Your task to perform on an android device: Go to Yahoo.com Image 0: 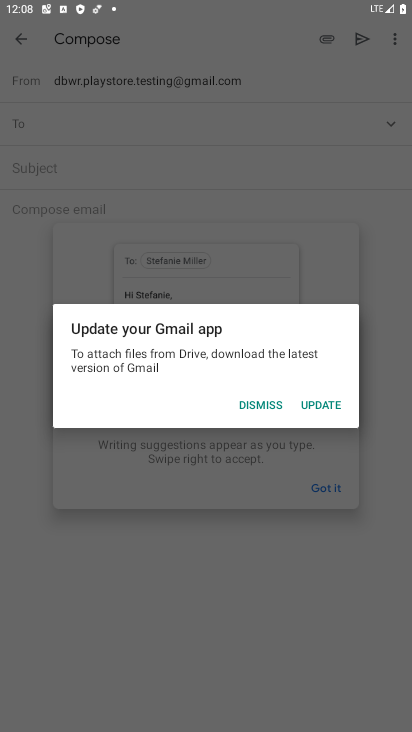
Step 0: press home button
Your task to perform on an android device: Go to Yahoo.com Image 1: 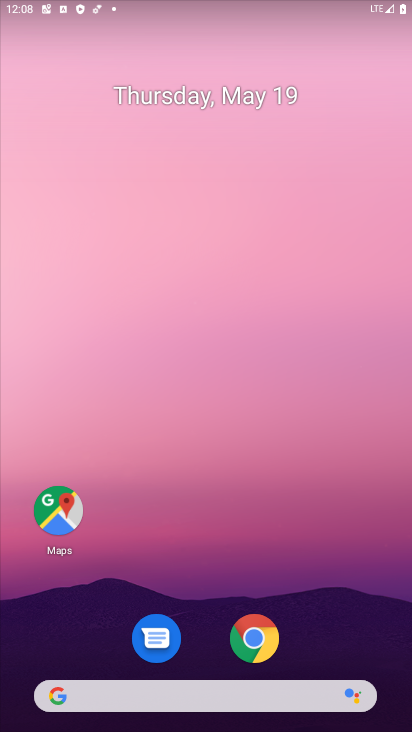
Step 1: drag from (366, 661) to (233, 34)
Your task to perform on an android device: Go to Yahoo.com Image 2: 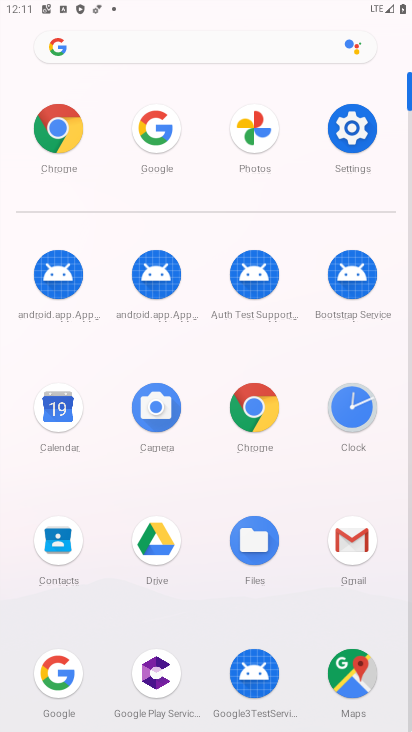
Step 2: click (58, 137)
Your task to perform on an android device: Go to Yahoo.com Image 3: 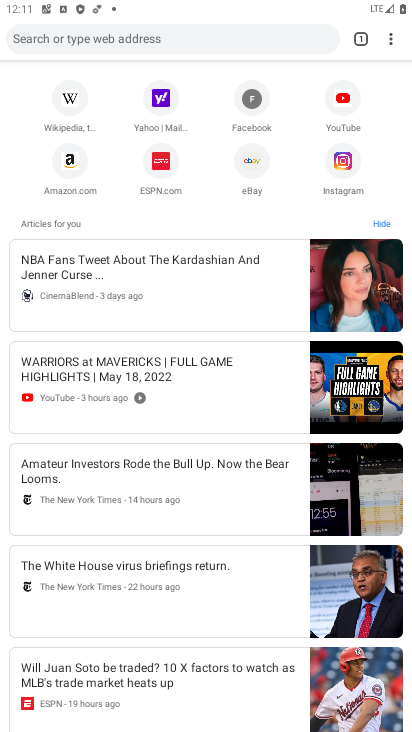
Step 3: click (168, 91)
Your task to perform on an android device: Go to Yahoo.com Image 4: 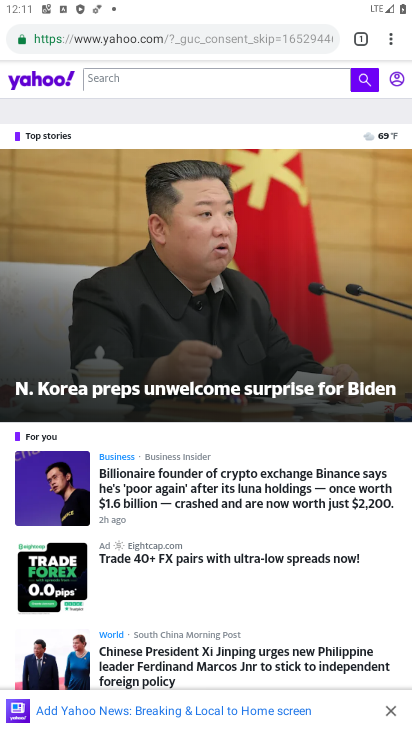
Step 4: task complete